Your task to perform on an android device: open device folders in google photos Image 0: 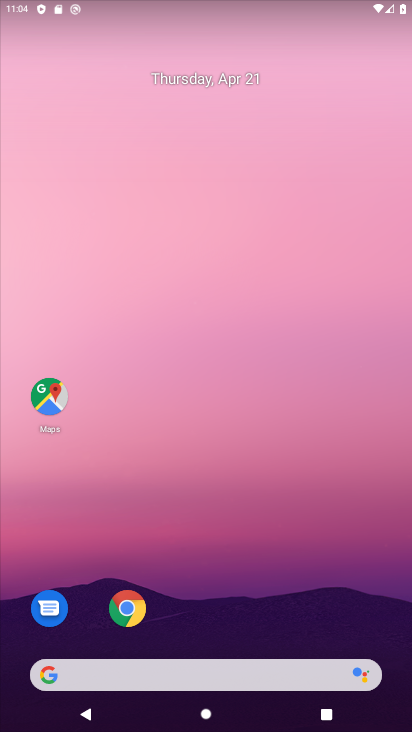
Step 0: drag from (202, 583) to (202, 196)
Your task to perform on an android device: open device folders in google photos Image 1: 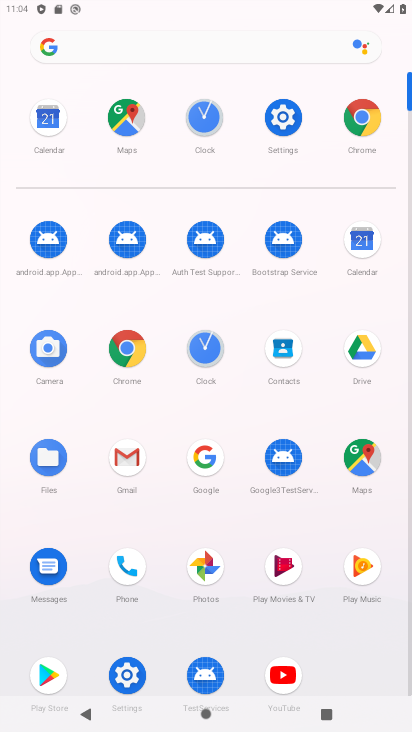
Step 1: click (199, 558)
Your task to perform on an android device: open device folders in google photos Image 2: 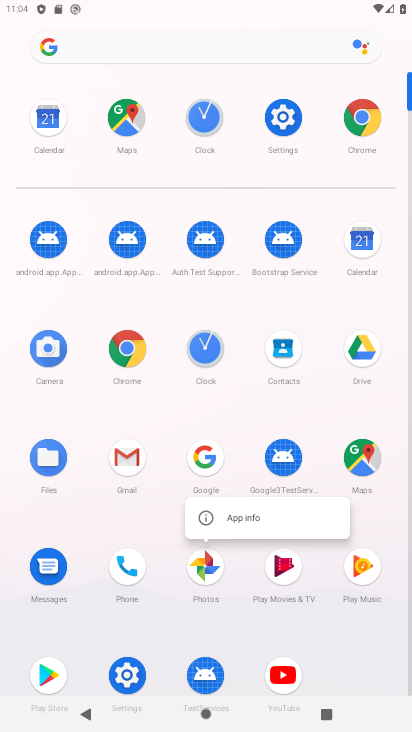
Step 2: click (202, 564)
Your task to perform on an android device: open device folders in google photos Image 3: 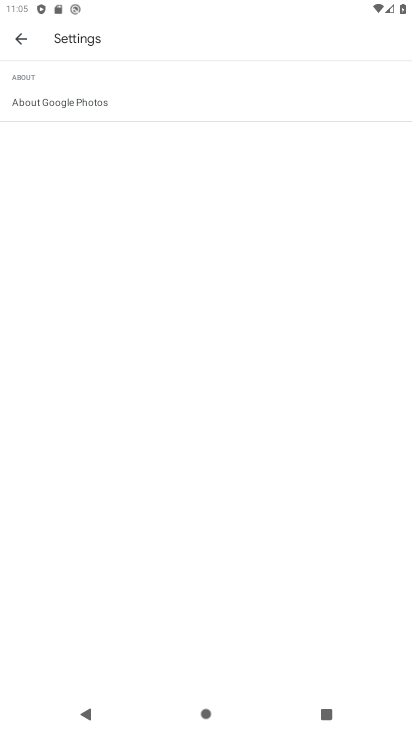
Step 3: click (21, 41)
Your task to perform on an android device: open device folders in google photos Image 4: 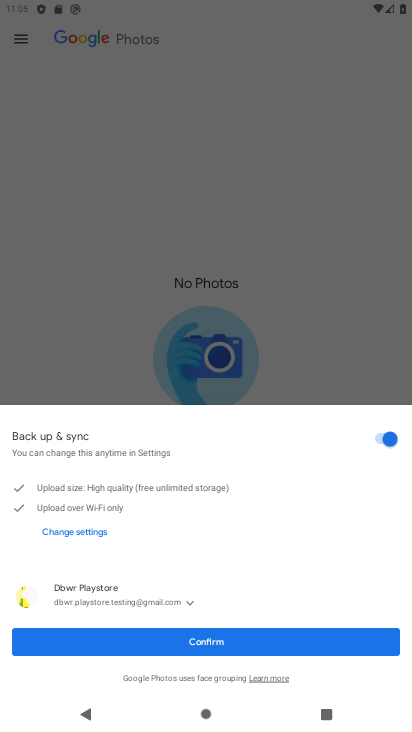
Step 4: click (148, 638)
Your task to perform on an android device: open device folders in google photos Image 5: 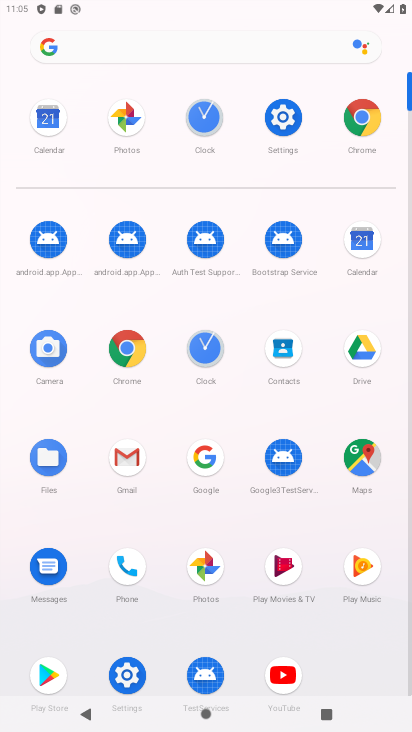
Step 5: click (203, 562)
Your task to perform on an android device: open device folders in google photos Image 6: 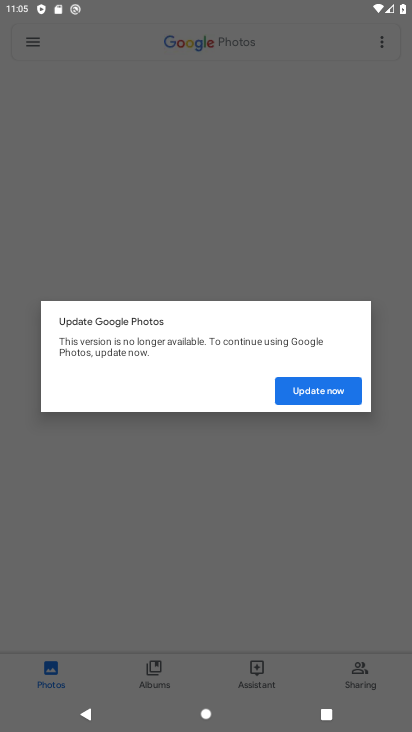
Step 6: click (316, 398)
Your task to perform on an android device: open device folders in google photos Image 7: 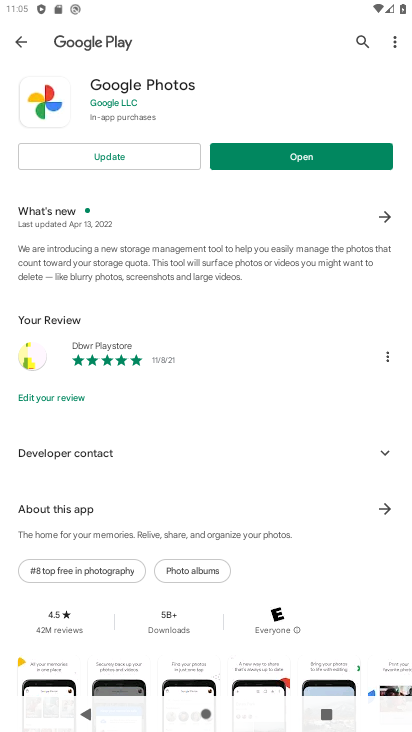
Step 7: press back button
Your task to perform on an android device: open device folders in google photos Image 8: 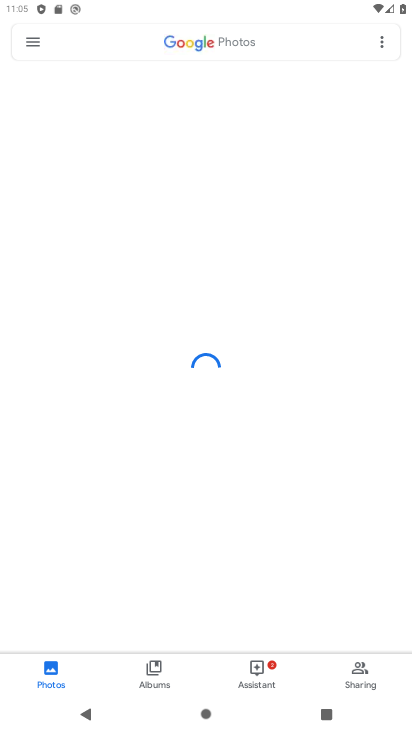
Step 8: click (49, 45)
Your task to perform on an android device: open device folders in google photos Image 9: 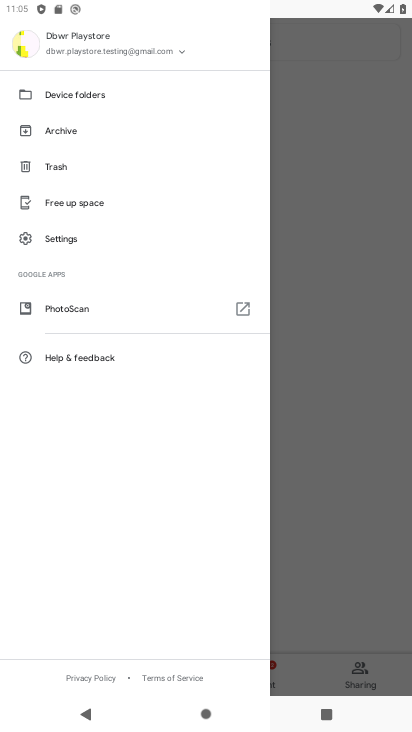
Step 9: click (83, 94)
Your task to perform on an android device: open device folders in google photos Image 10: 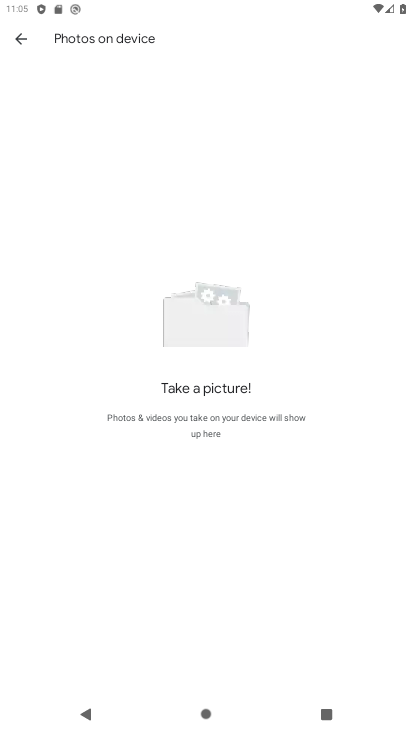
Step 10: task complete